Your task to perform on an android device: turn on priority inbox in the gmail app Image 0: 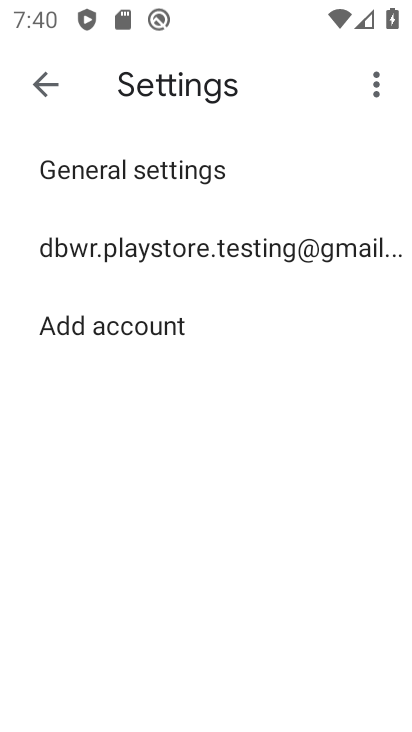
Step 0: click (207, 267)
Your task to perform on an android device: turn on priority inbox in the gmail app Image 1: 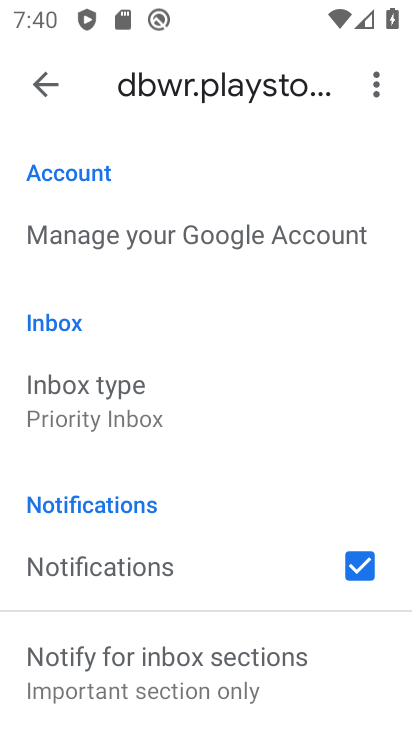
Step 1: drag from (182, 594) to (237, 124)
Your task to perform on an android device: turn on priority inbox in the gmail app Image 2: 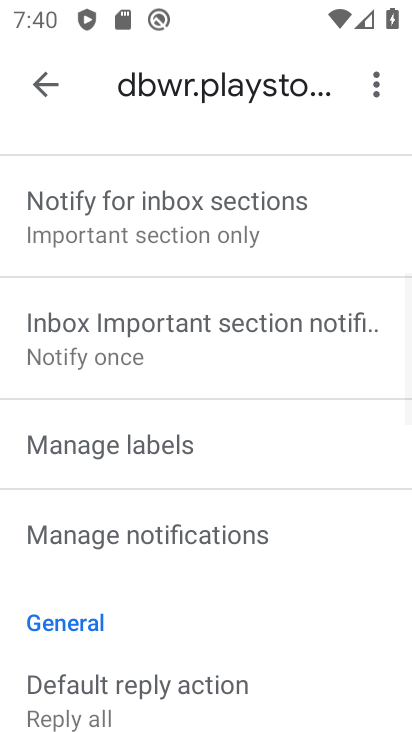
Step 2: drag from (174, 381) to (318, 725)
Your task to perform on an android device: turn on priority inbox in the gmail app Image 3: 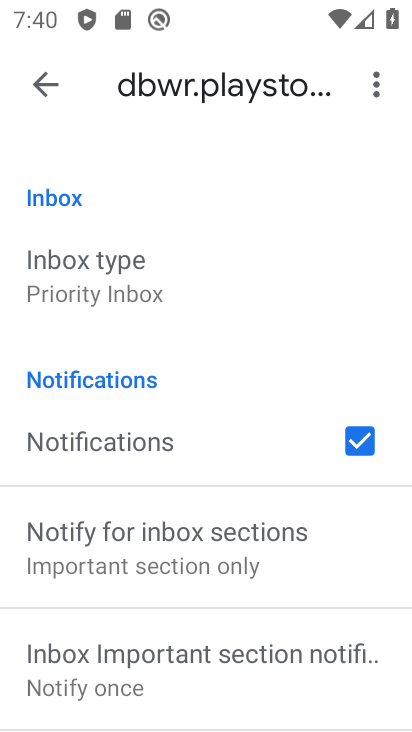
Step 3: click (120, 269)
Your task to perform on an android device: turn on priority inbox in the gmail app Image 4: 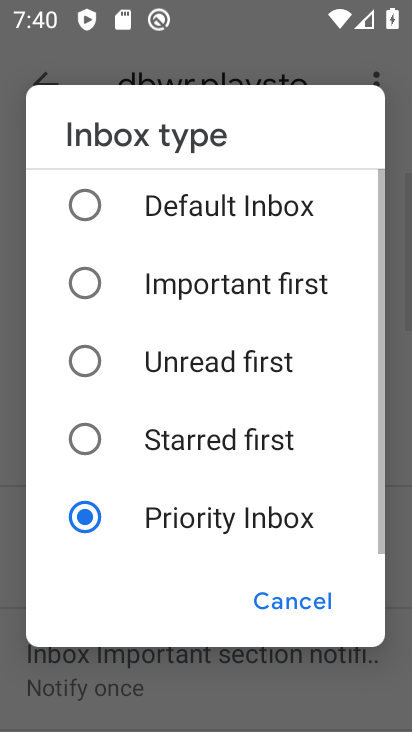
Step 4: click (154, 496)
Your task to perform on an android device: turn on priority inbox in the gmail app Image 5: 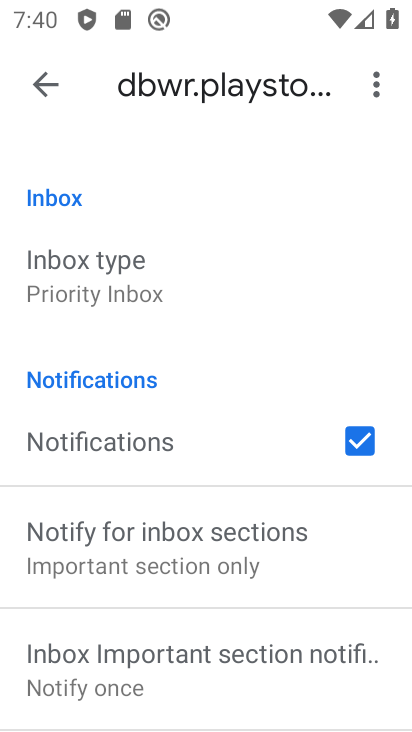
Step 5: task complete